Your task to perform on an android device: turn off priority inbox in the gmail app Image 0: 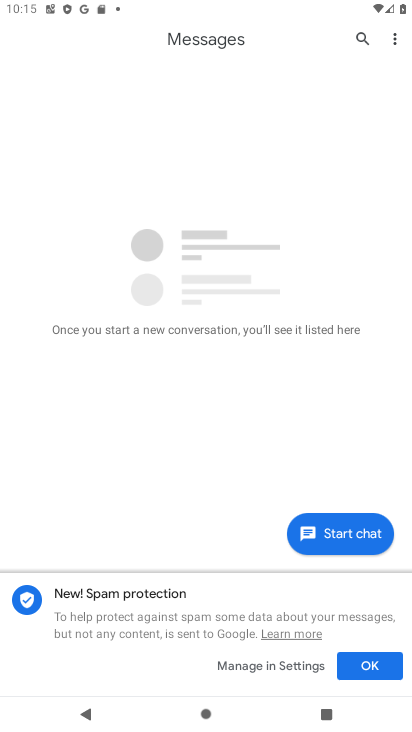
Step 0: press home button
Your task to perform on an android device: turn off priority inbox in the gmail app Image 1: 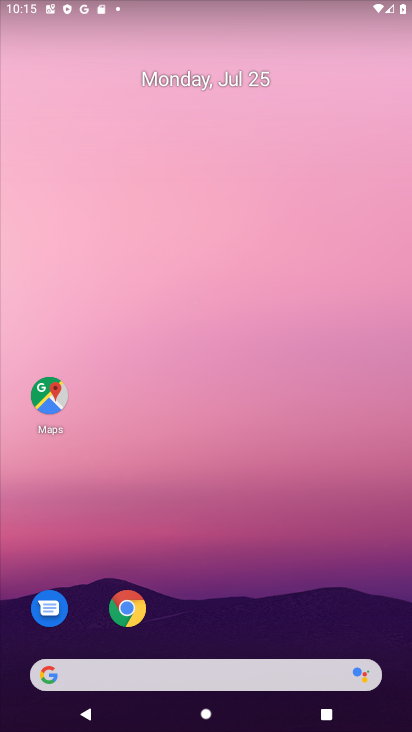
Step 1: drag from (249, 633) to (298, 57)
Your task to perform on an android device: turn off priority inbox in the gmail app Image 2: 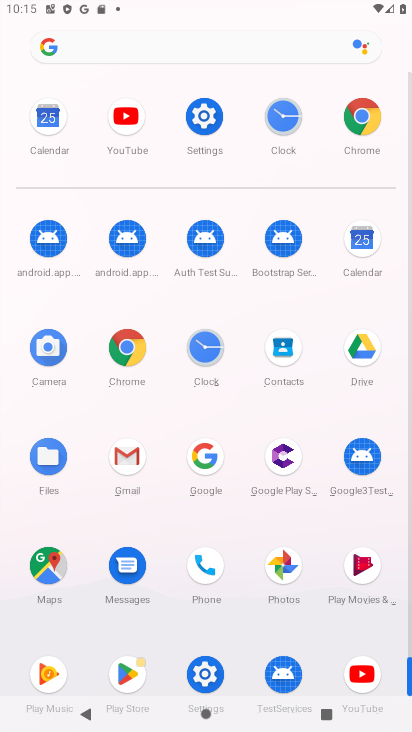
Step 2: click (124, 471)
Your task to perform on an android device: turn off priority inbox in the gmail app Image 3: 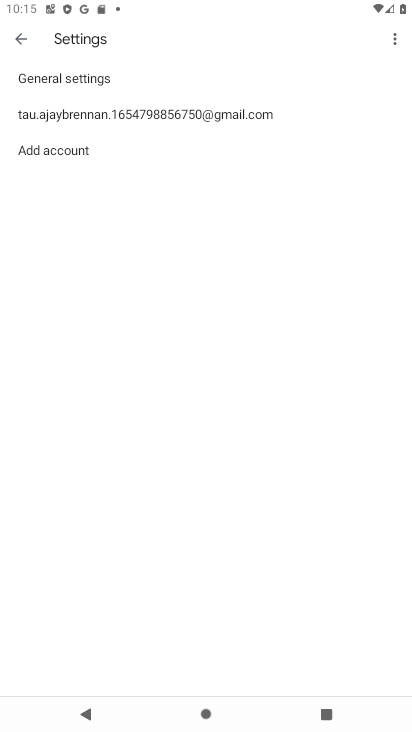
Step 3: click (127, 121)
Your task to perform on an android device: turn off priority inbox in the gmail app Image 4: 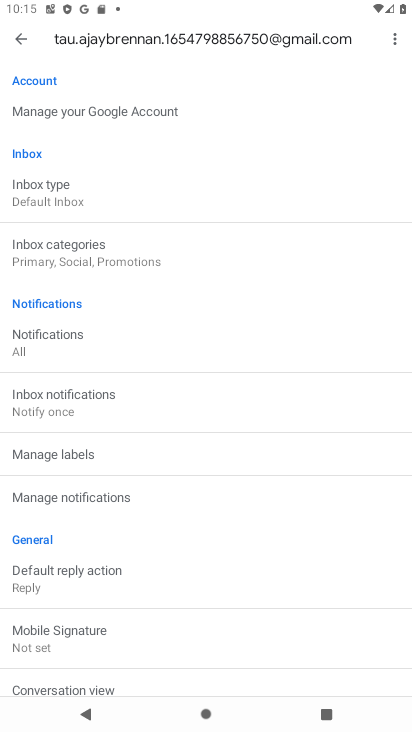
Step 4: click (71, 206)
Your task to perform on an android device: turn off priority inbox in the gmail app Image 5: 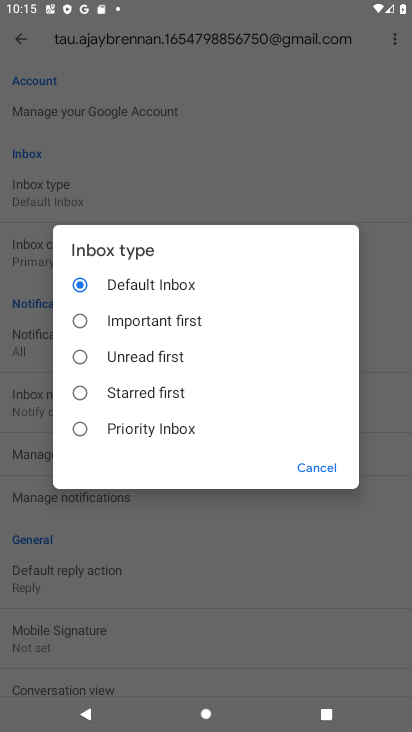
Step 5: task complete